Your task to perform on an android device: Go to notification settings Image 0: 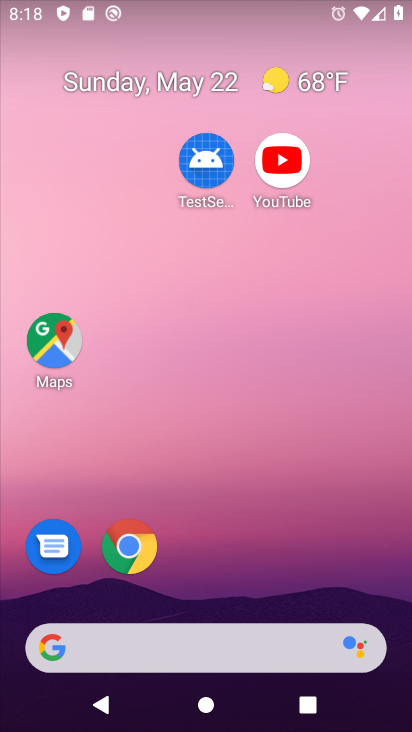
Step 0: drag from (270, 683) to (204, 36)
Your task to perform on an android device: Go to notification settings Image 1: 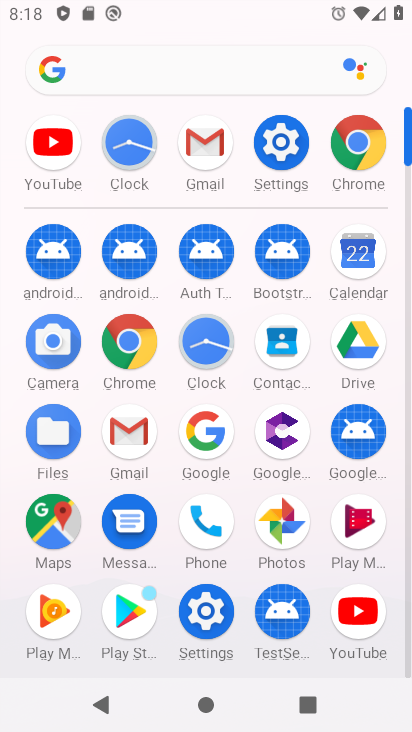
Step 1: click (283, 137)
Your task to perform on an android device: Go to notification settings Image 2: 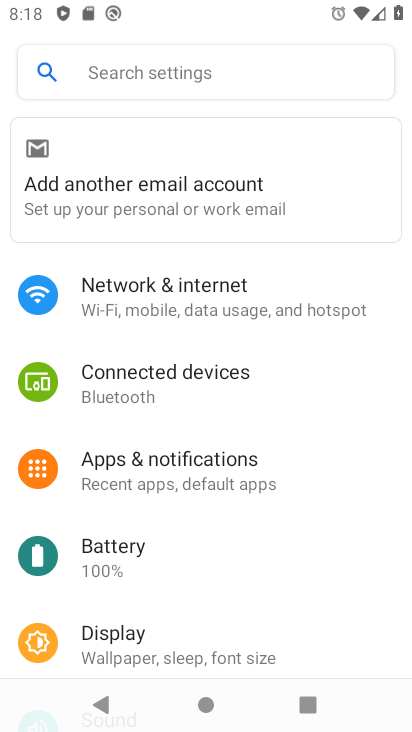
Step 2: click (279, 163)
Your task to perform on an android device: Go to notification settings Image 3: 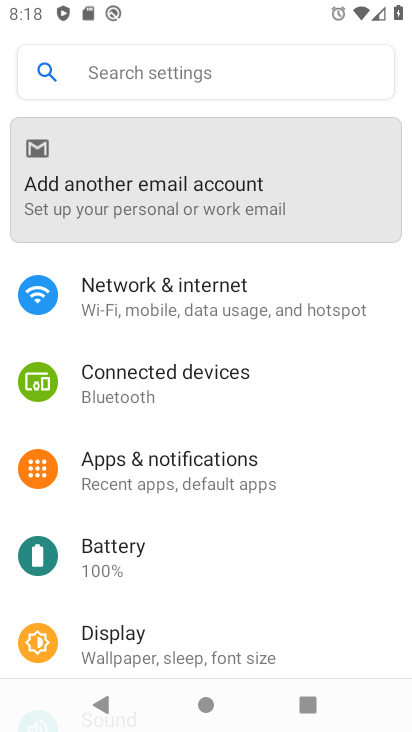
Step 3: click (278, 164)
Your task to perform on an android device: Go to notification settings Image 4: 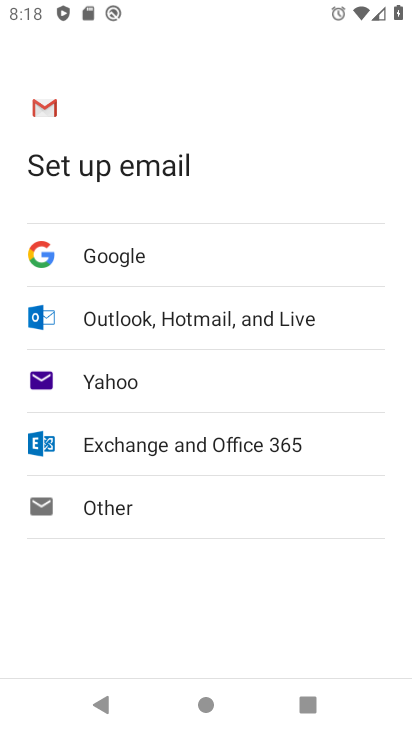
Step 4: press back button
Your task to perform on an android device: Go to notification settings Image 5: 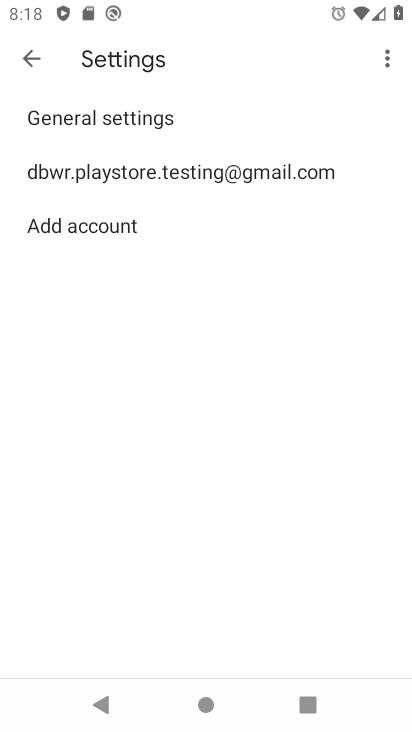
Step 5: press home button
Your task to perform on an android device: Go to notification settings Image 6: 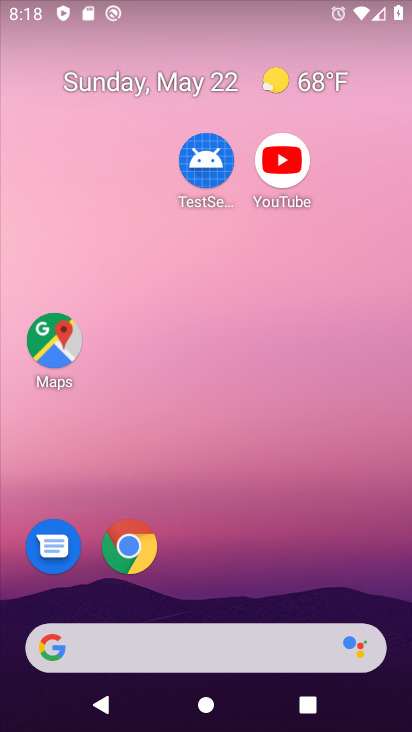
Step 6: drag from (255, 678) to (181, 106)
Your task to perform on an android device: Go to notification settings Image 7: 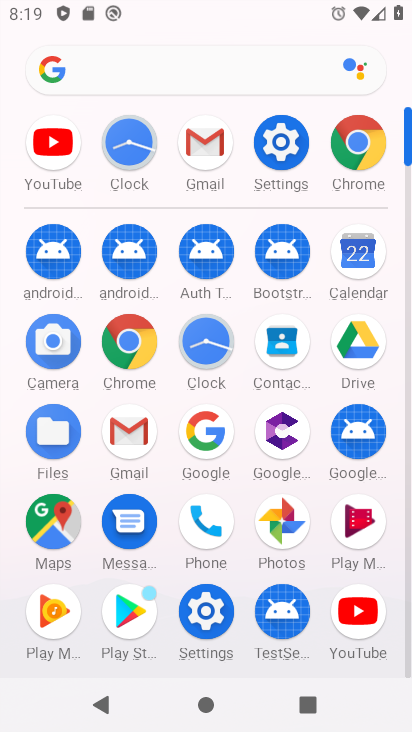
Step 7: click (271, 144)
Your task to perform on an android device: Go to notification settings Image 8: 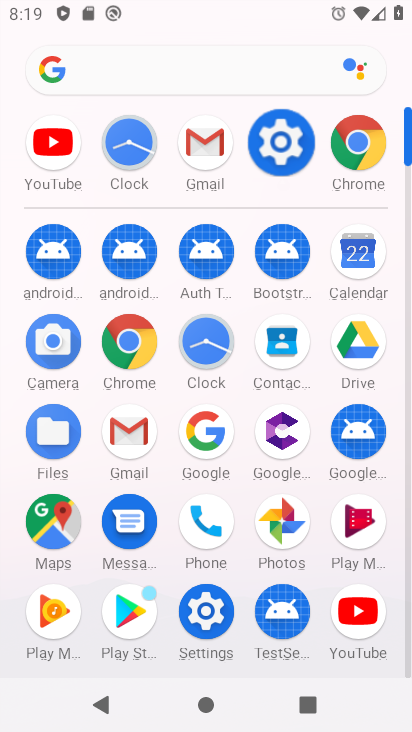
Step 8: click (283, 137)
Your task to perform on an android device: Go to notification settings Image 9: 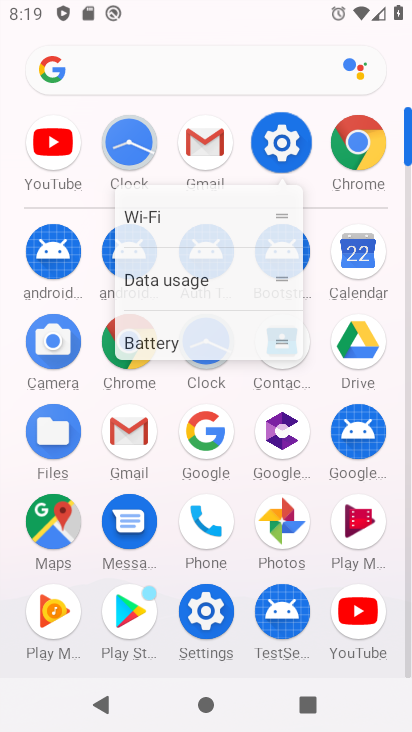
Step 9: click (285, 135)
Your task to perform on an android device: Go to notification settings Image 10: 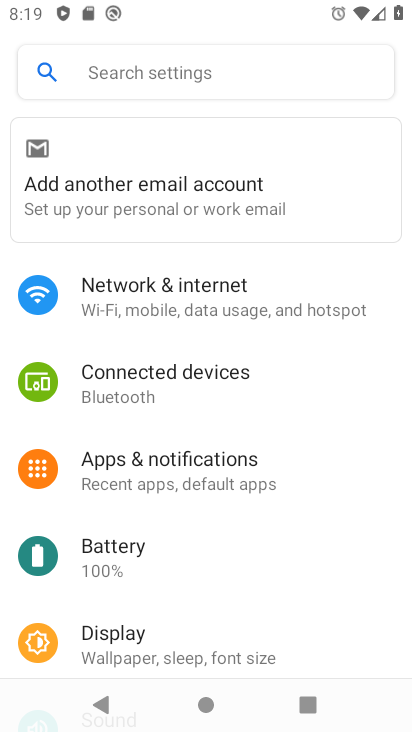
Step 10: click (157, 468)
Your task to perform on an android device: Go to notification settings Image 11: 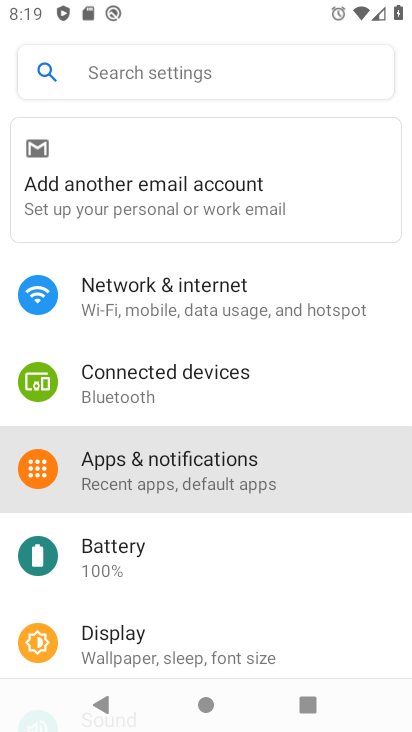
Step 11: click (156, 464)
Your task to perform on an android device: Go to notification settings Image 12: 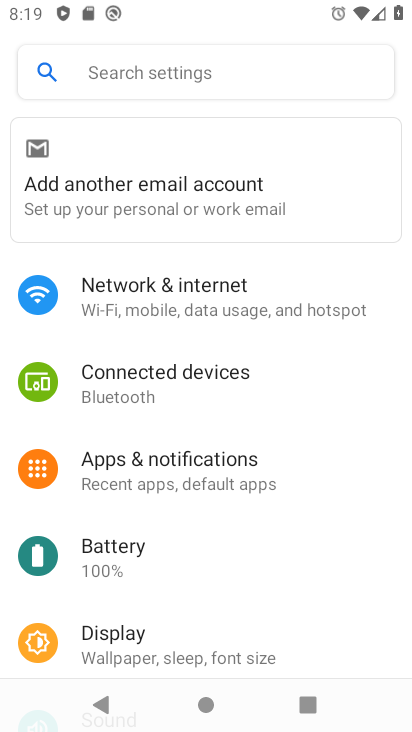
Step 12: click (158, 461)
Your task to perform on an android device: Go to notification settings Image 13: 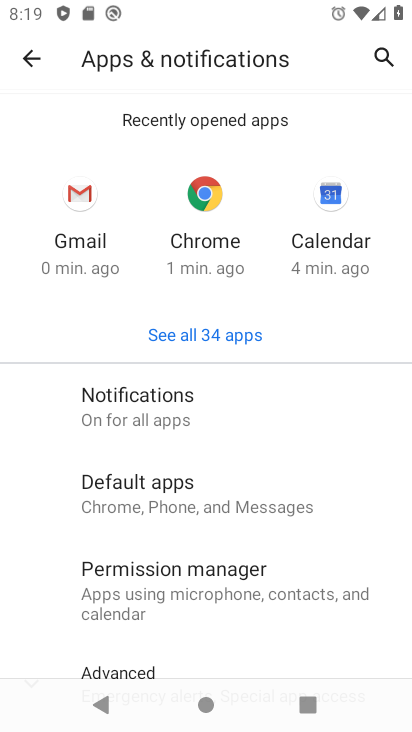
Step 13: task complete